Your task to perform on an android device: Search for Italian restaurants on Maps Image 0: 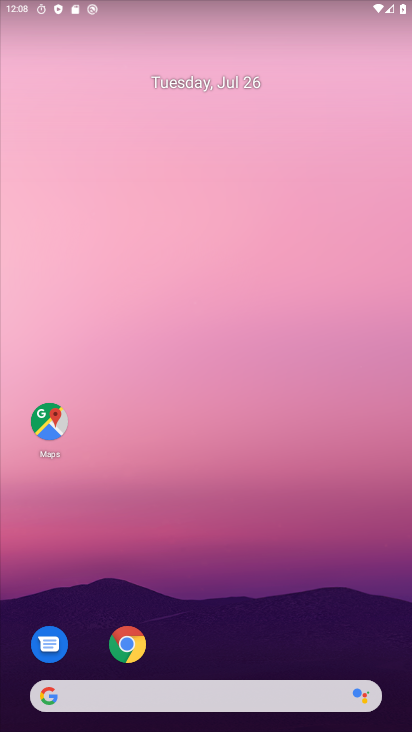
Step 0: drag from (307, 651) to (338, 93)
Your task to perform on an android device: Search for Italian restaurants on Maps Image 1: 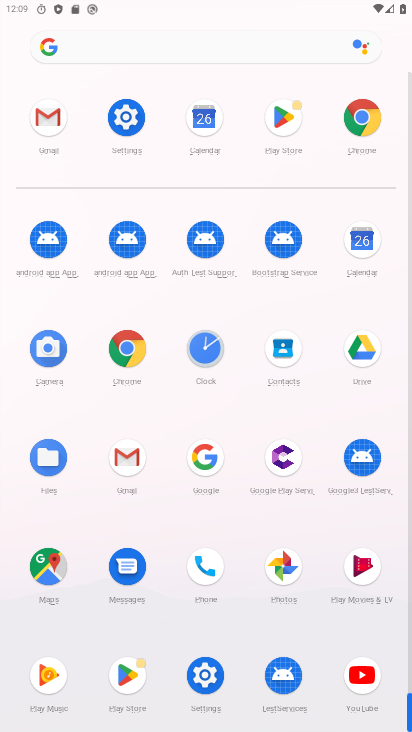
Step 1: click (55, 558)
Your task to perform on an android device: Search for Italian restaurants on Maps Image 2: 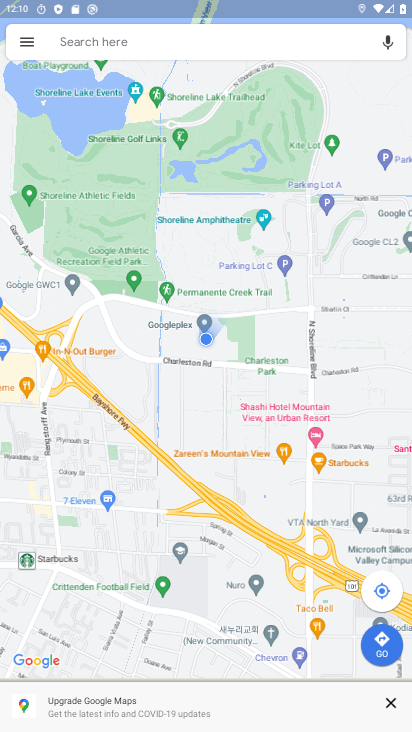
Step 2: click (140, 39)
Your task to perform on an android device: Search for Italian restaurants on Maps Image 3: 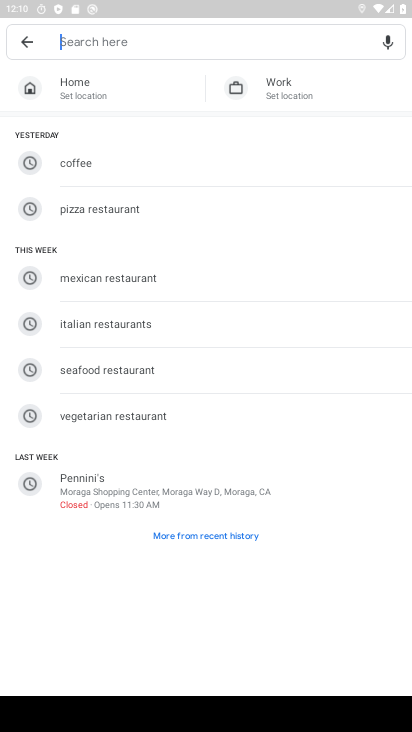
Step 3: click (88, 324)
Your task to perform on an android device: Search for Italian restaurants on Maps Image 4: 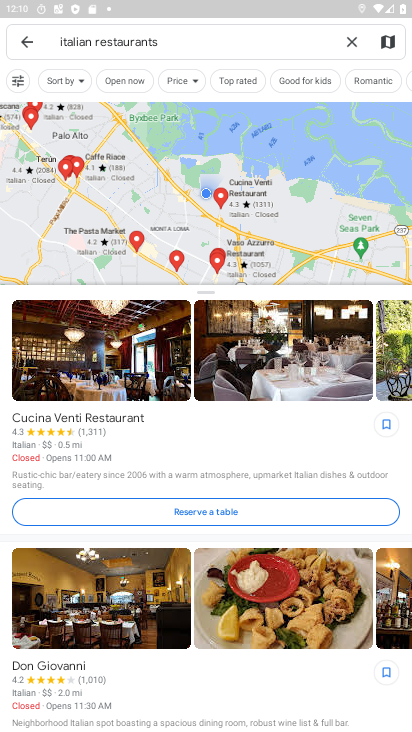
Step 4: task complete